Your task to perform on an android device: Clear all items from cart on bestbuy.com. Search for apple airpods pro on bestbuy.com, select the first entry, add it to the cart, then select checkout. Image 0: 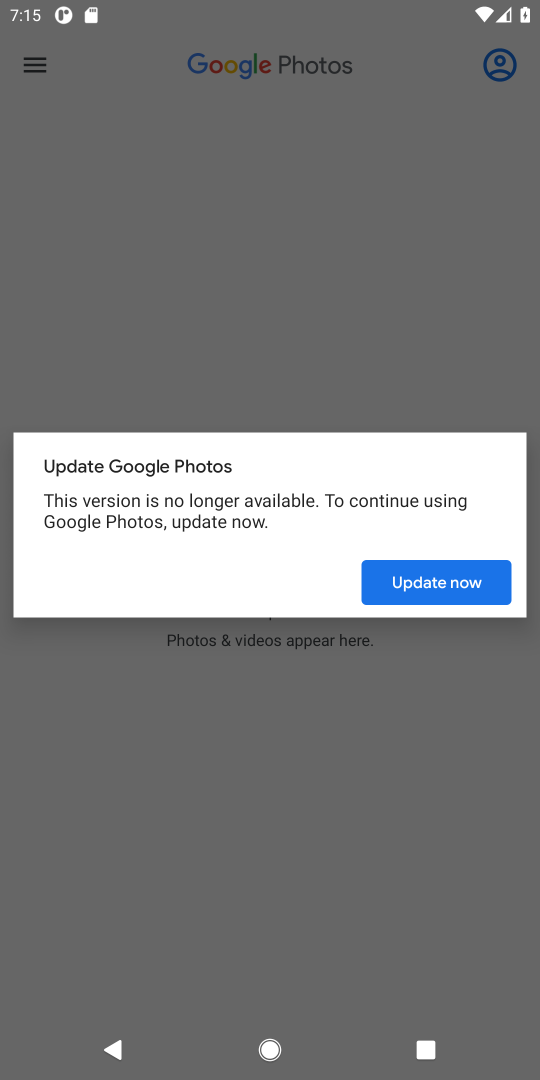
Step 0: press home button
Your task to perform on an android device: Clear all items from cart on bestbuy.com. Search for apple airpods pro on bestbuy.com, select the first entry, add it to the cart, then select checkout. Image 1: 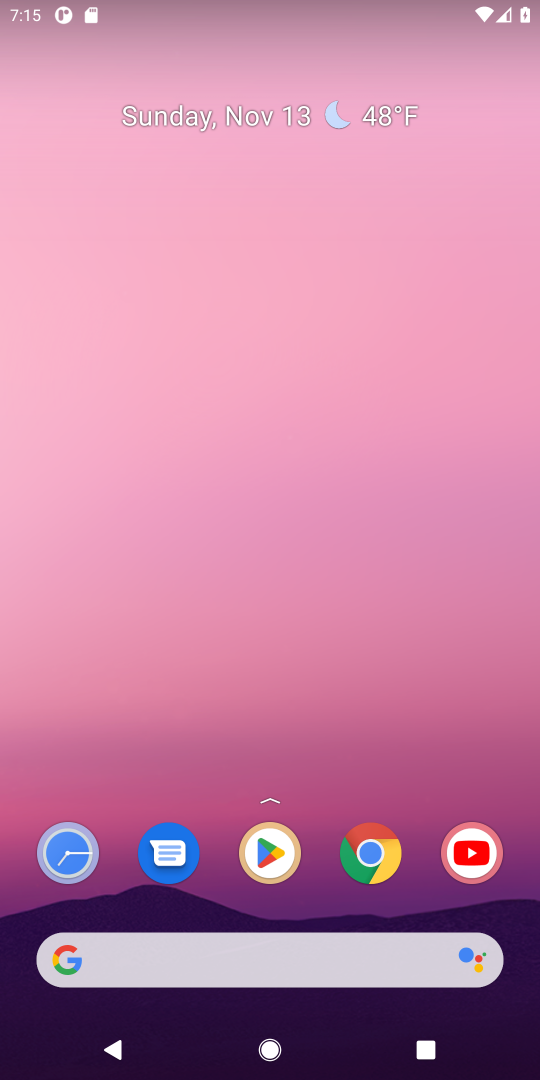
Step 1: click (94, 955)
Your task to perform on an android device: Clear all items from cart on bestbuy.com. Search for apple airpods pro on bestbuy.com, select the first entry, add it to the cart, then select checkout. Image 2: 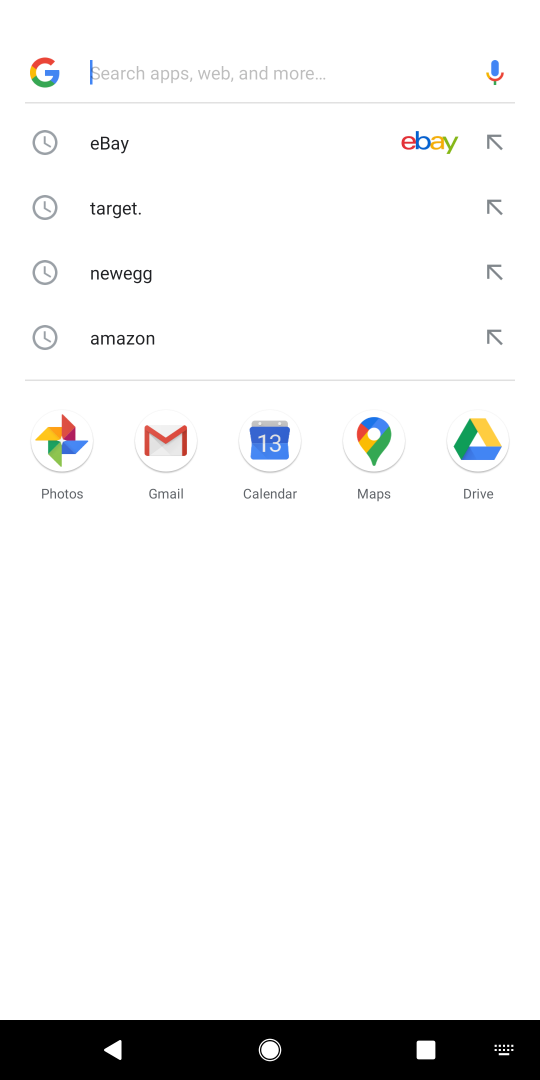
Step 2: type "bestbuy.com"
Your task to perform on an android device: Clear all items from cart on bestbuy.com. Search for apple airpods pro on bestbuy.com, select the first entry, add it to the cart, then select checkout. Image 3: 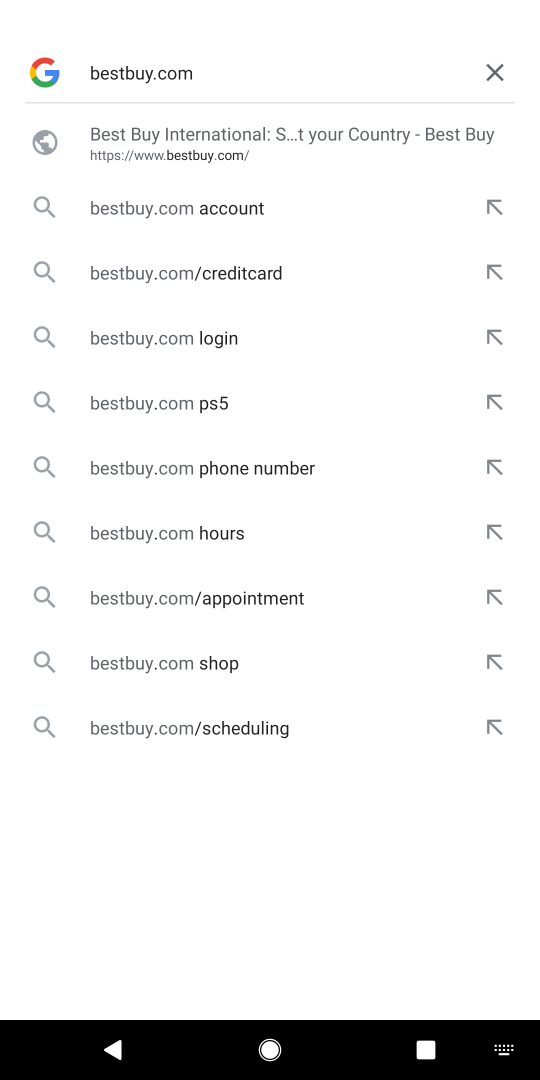
Step 3: press enter
Your task to perform on an android device: Clear all items from cart on bestbuy.com. Search for apple airpods pro on bestbuy.com, select the first entry, add it to the cart, then select checkout. Image 4: 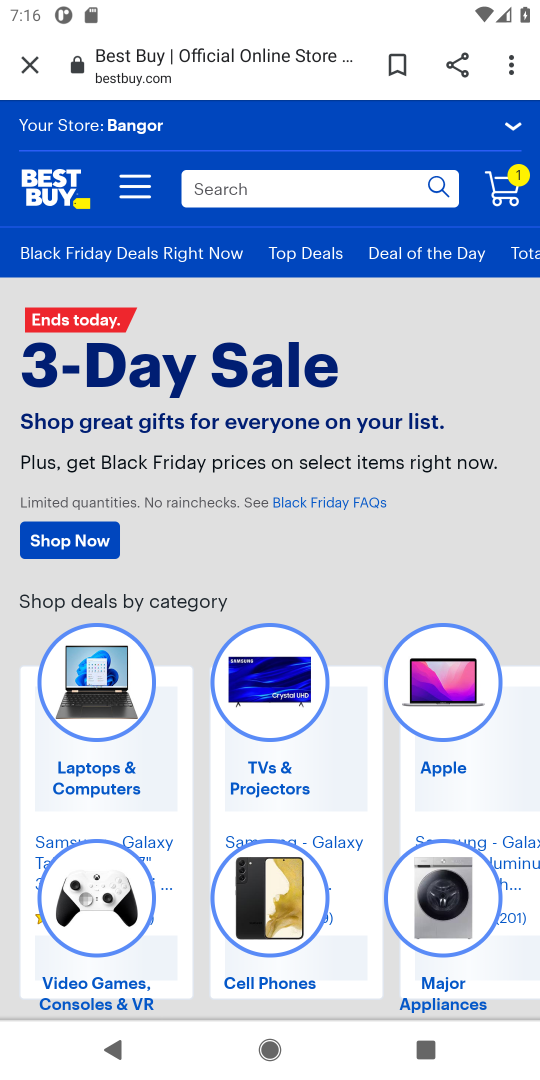
Step 4: click (507, 191)
Your task to perform on an android device: Clear all items from cart on bestbuy.com. Search for apple airpods pro on bestbuy.com, select the first entry, add it to the cart, then select checkout. Image 5: 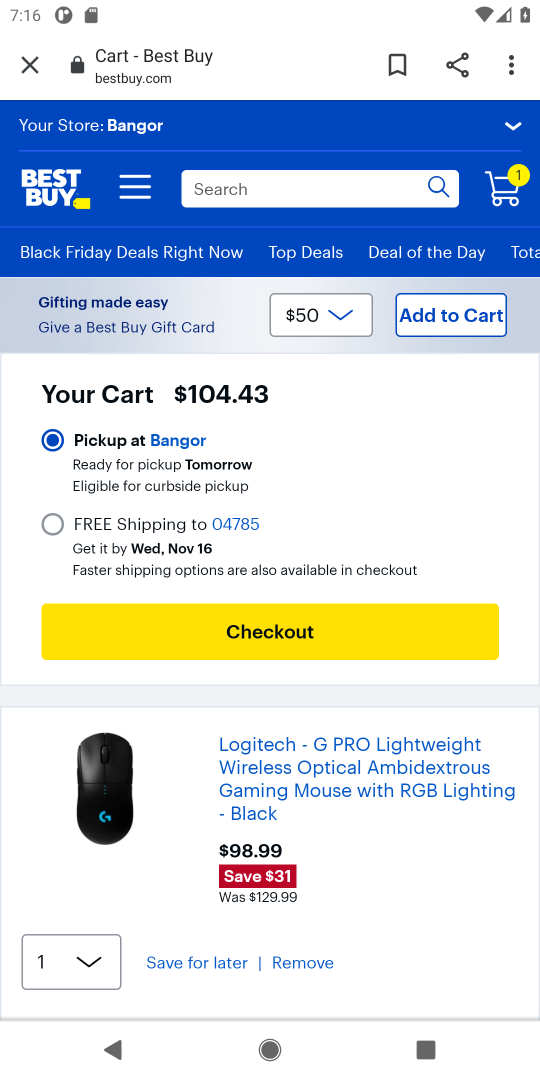
Step 5: click (310, 960)
Your task to perform on an android device: Clear all items from cart on bestbuy.com. Search for apple airpods pro on bestbuy.com, select the first entry, add it to the cart, then select checkout. Image 6: 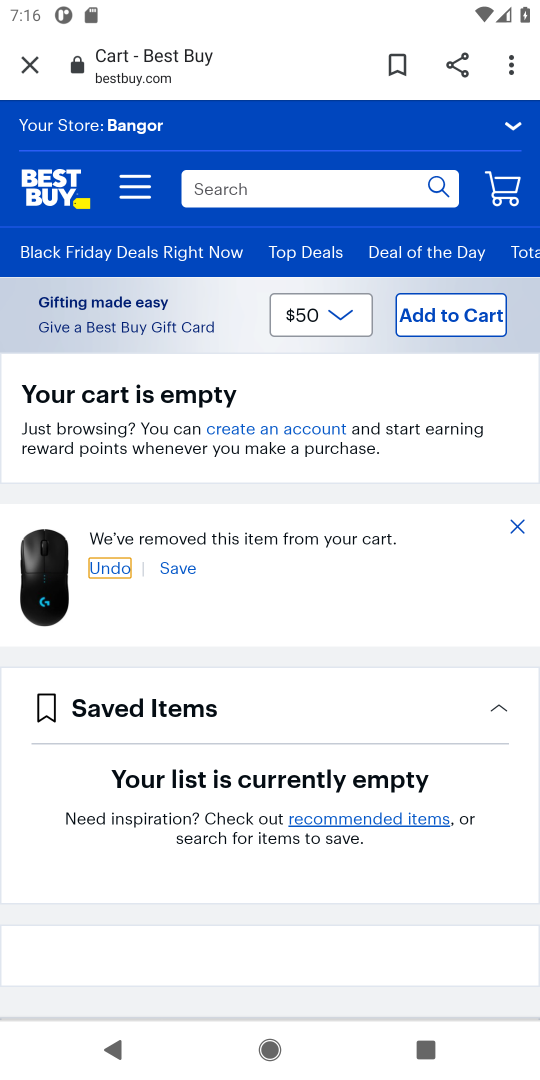
Step 6: click (223, 185)
Your task to perform on an android device: Clear all items from cart on bestbuy.com. Search for apple airpods pro on bestbuy.com, select the first entry, add it to the cart, then select checkout. Image 7: 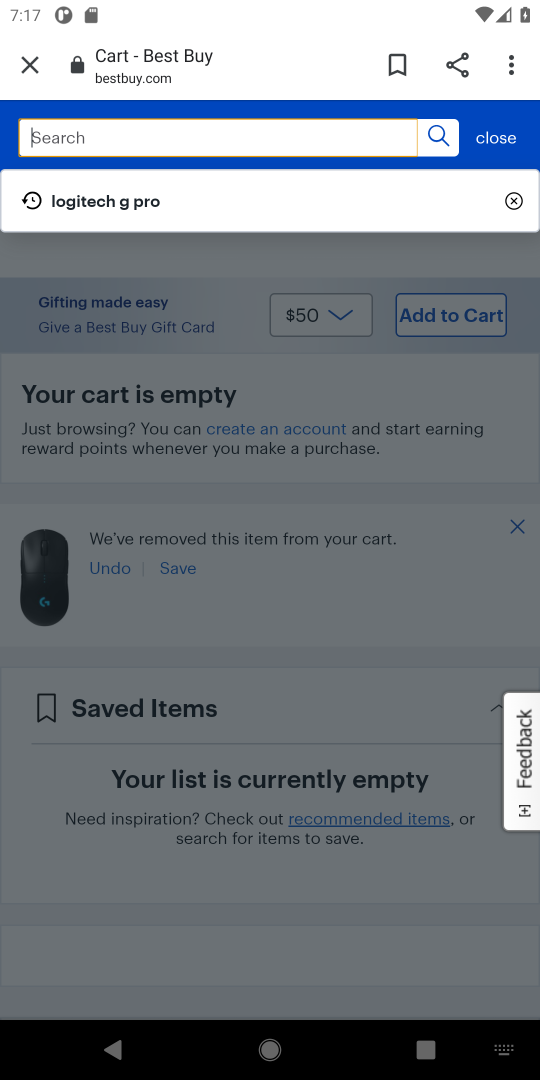
Step 7: type "apple airpods"
Your task to perform on an android device: Clear all items from cart on bestbuy.com. Search for apple airpods pro on bestbuy.com, select the first entry, add it to the cart, then select checkout. Image 8: 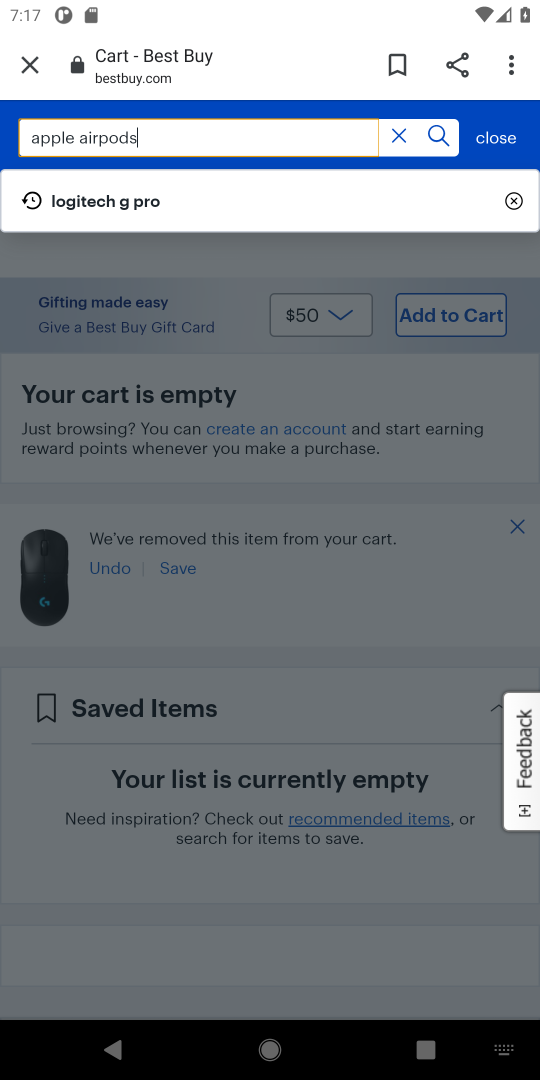
Step 8: press enter
Your task to perform on an android device: Clear all items from cart on bestbuy.com. Search for apple airpods pro on bestbuy.com, select the first entry, add it to the cart, then select checkout. Image 9: 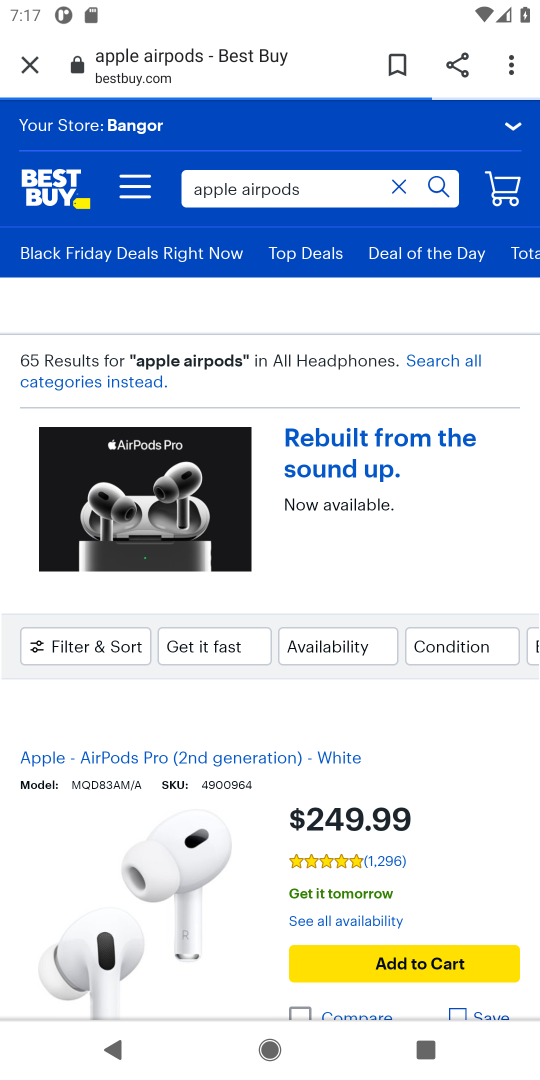
Step 9: drag from (363, 807) to (357, 412)
Your task to perform on an android device: Clear all items from cart on bestbuy.com. Search for apple airpods pro on bestbuy.com, select the first entry, add it to the cart, then select checkout. Image 10: 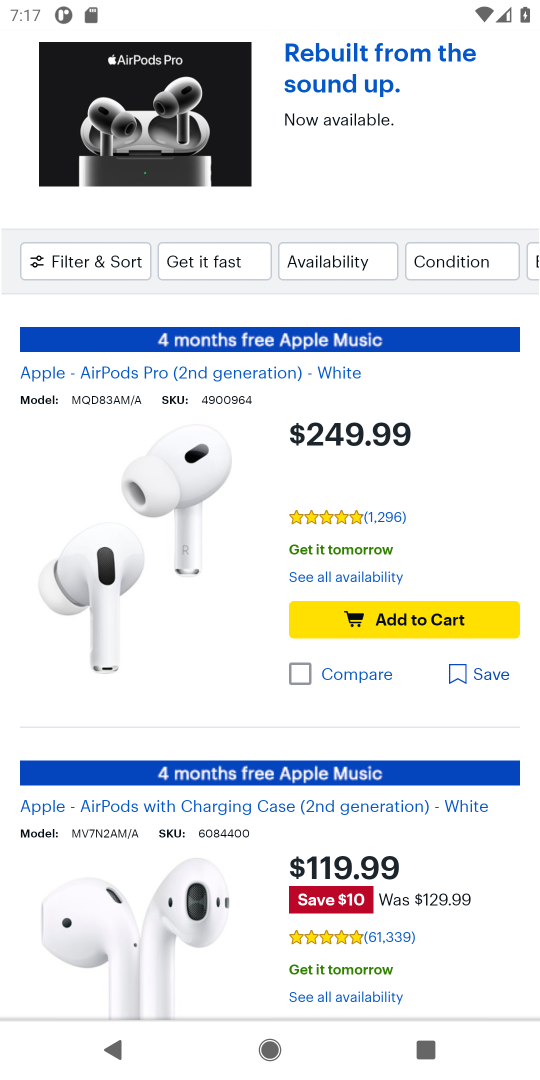
Step 10: drag from (378, 839) to (379, 504)
Your task to perform on an android device: Clear all items from cart on bestbuy.com. Search for apple airpods pro on bestbuy.com, select the first entry, add it to the cart, then select checkout. Image 11: 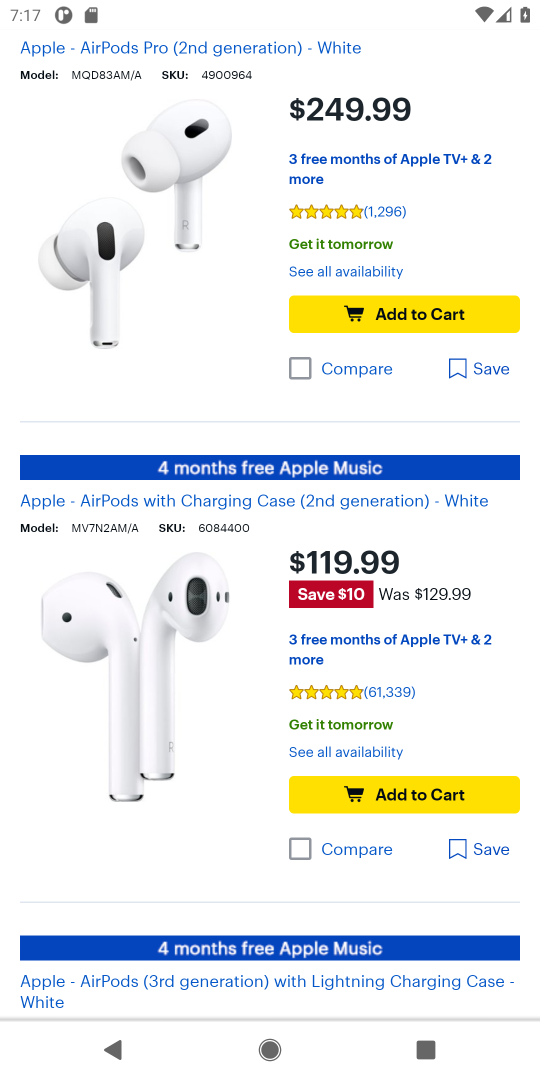
Step 11: click (399, 314)
Your task to perform on an android device: Clear all items from cart on bestbuy.com. Search for apple airpods pro on bestbuy.com, select the first entry, add it to the cart, then select checkout. Image 12: 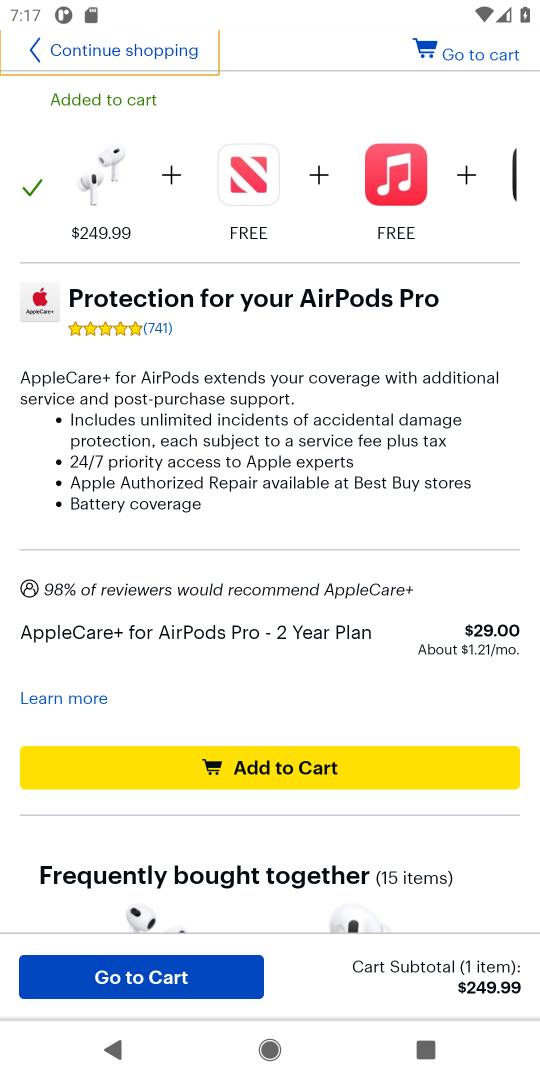
Step 12: task complete